Your task to perform on an android device: Open Google Chrome and click the shortcut for Amazon.com Image 0: 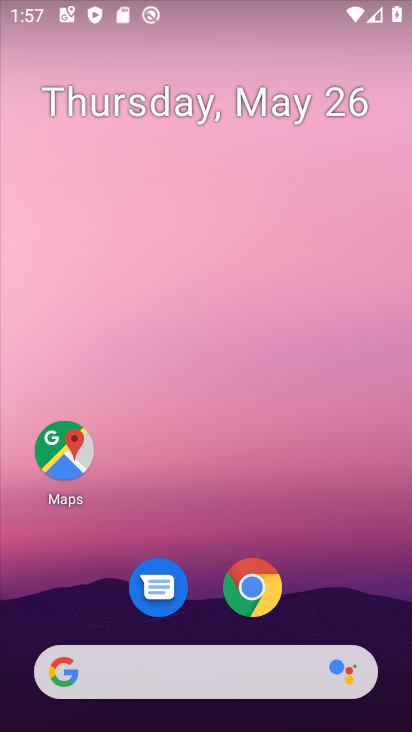
Step 0: click (255, 582)
Your task to perform on an android device: Open Google Chrome and click the shortcut for Amazon.com Image 1: 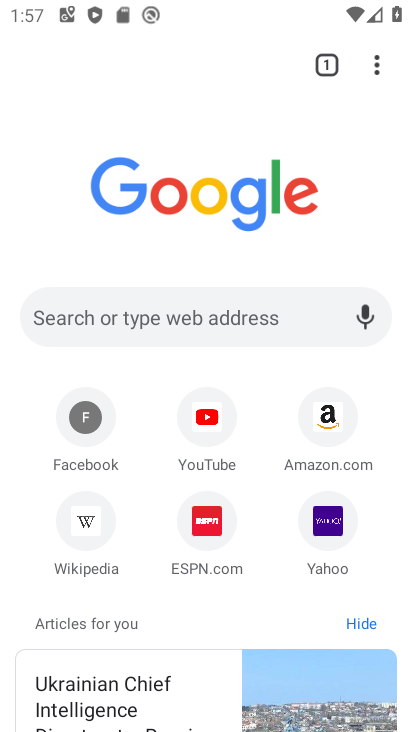
Step 1: click (334, 420)
Your task to perform on an android device: Open Google Chrome and click the shortcut for Amazon.com Image 2: 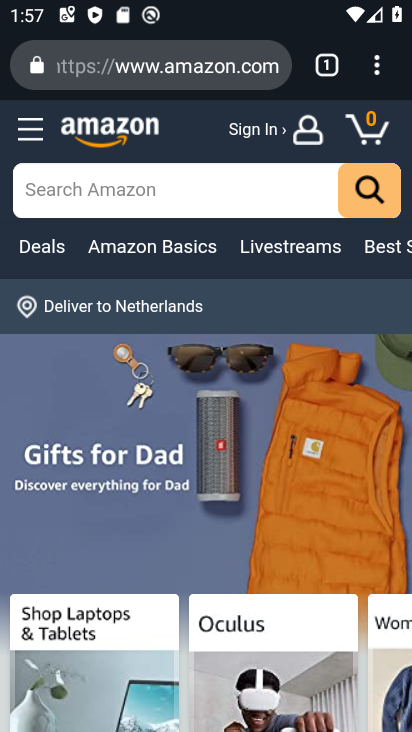
Step 2: task complete